Your task to perform on an android device: change the clock display to show seconds Image 0: 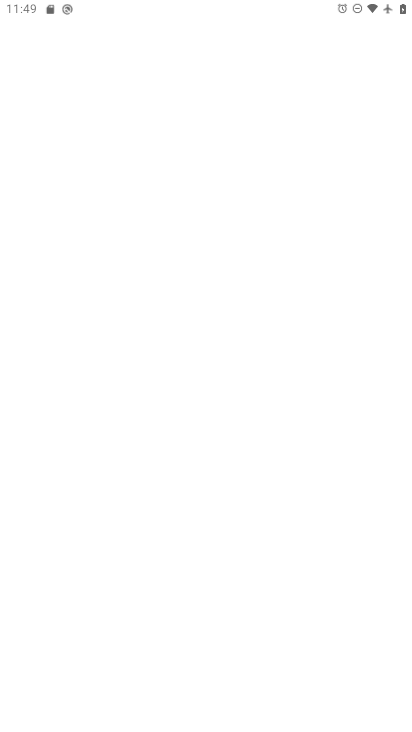
Step 0: drag from (260, 625) to (253, 172)
Your task to perform on an android device: change the clock display to show seconds Image 1: 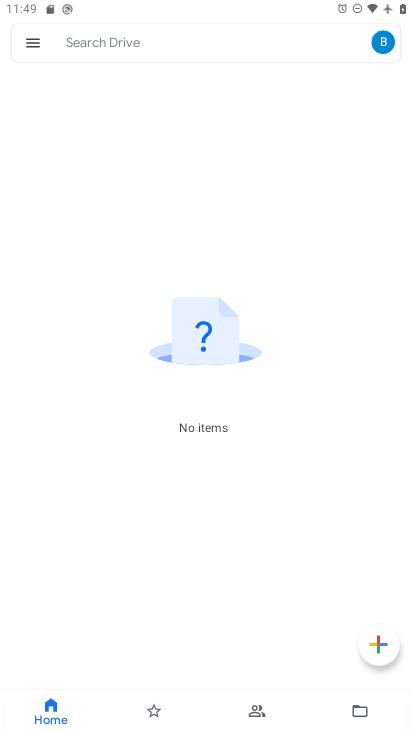
Step 1: press home button
Your task to perform on an android device: change the clock display to show seconds Image 2: 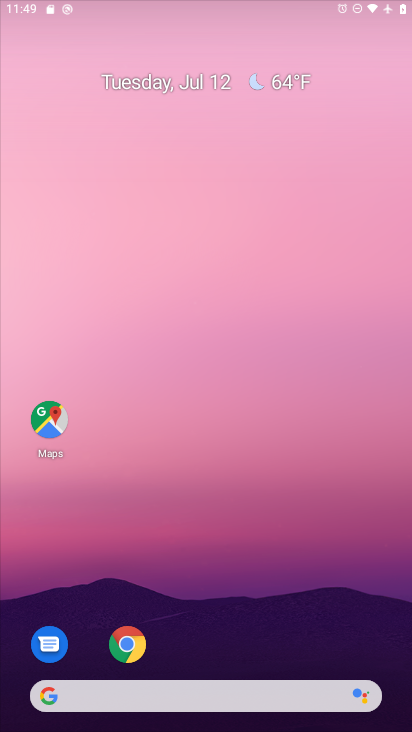
Step 2: drag from (208, 637) to (222, 94)
Your task to perform on an android device: change the clock display to show seconds Image 3: 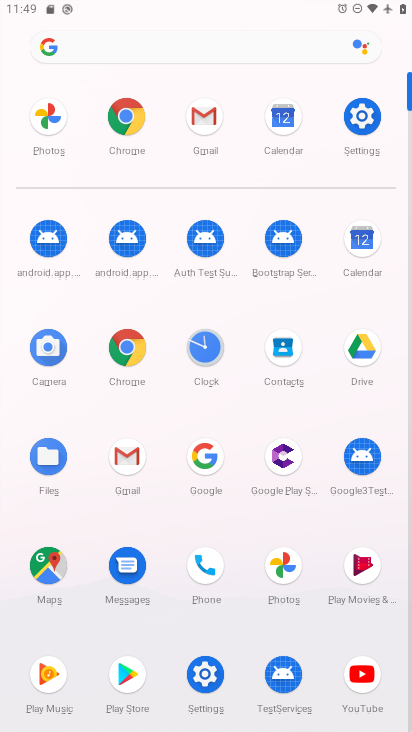
Step 3: click (208, 345)
Your task to perform on an android device: change the clock display to show seconds Image 4: 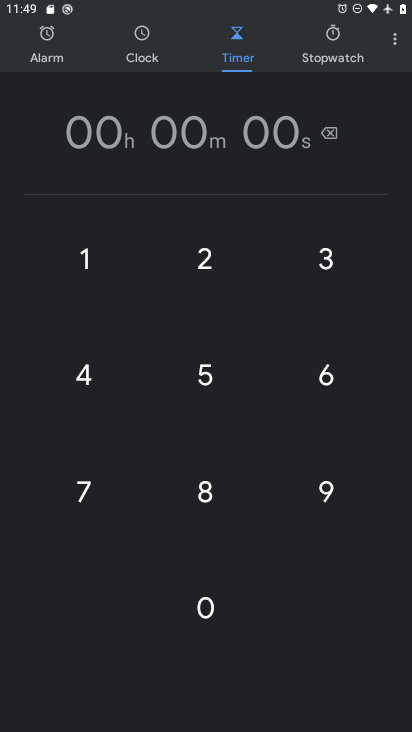
Step 4: click (388, 51)
Your task to perform on an android device: change the clock display to show seconds Image 5: 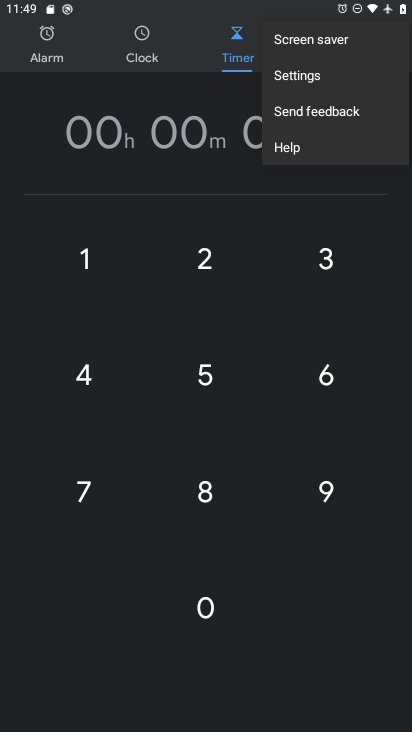
Step 5: click (329, 82)
Your task to perform on an android device: change the clock display to show seconds Image 6: 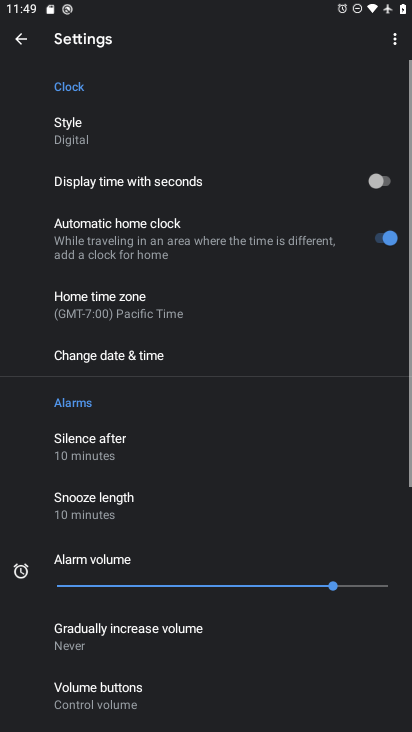
Step 6: click (216, 119)
Your task to perform on an android device: change the clock display to show seconds Image 7: 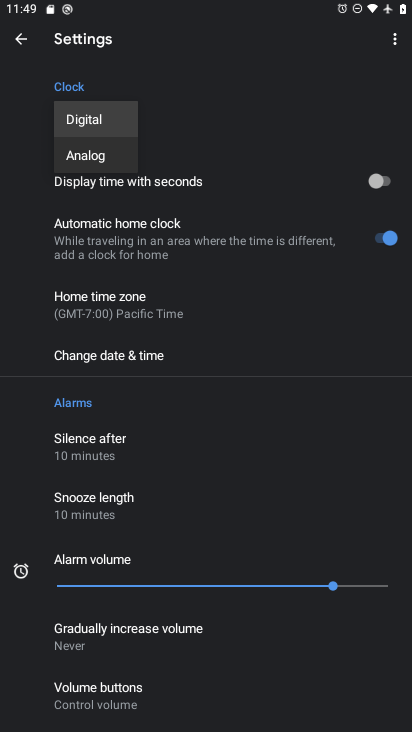
Step 7: click (131, 154)
Your task to perform on an android device: change the clock display to show seconds Image 8: 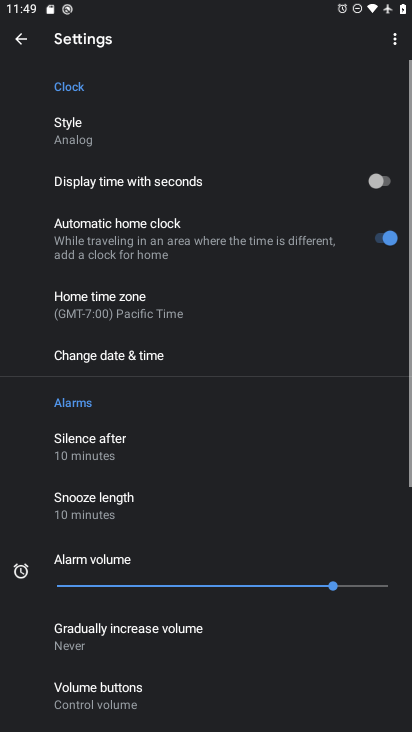
Step 8: click (349, 189)
Your task to perform on an android device: change the clock display to show seconds Image 9: 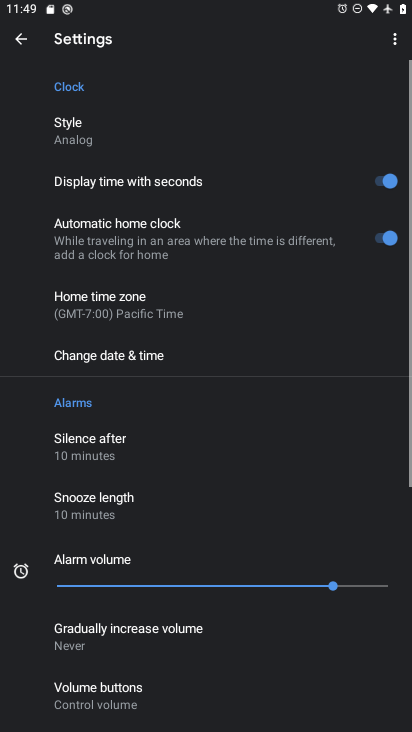
Step 9: task complete